Your task to perform on an android device: Go to ESPN.com Image 0: 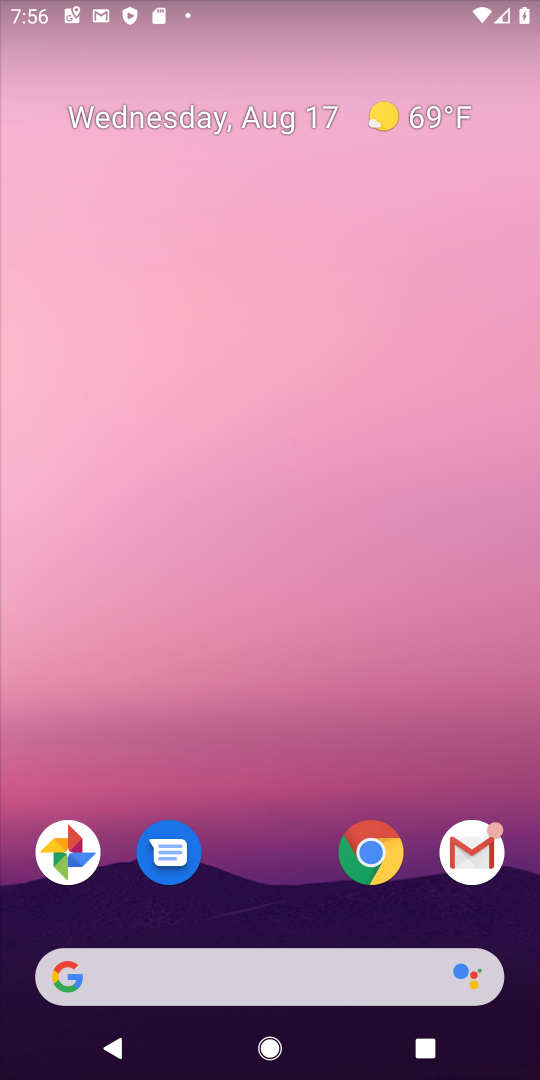
Step 0: click (369, 850)
Your task to perform on an android device: Go to ESPN.com Image 1: 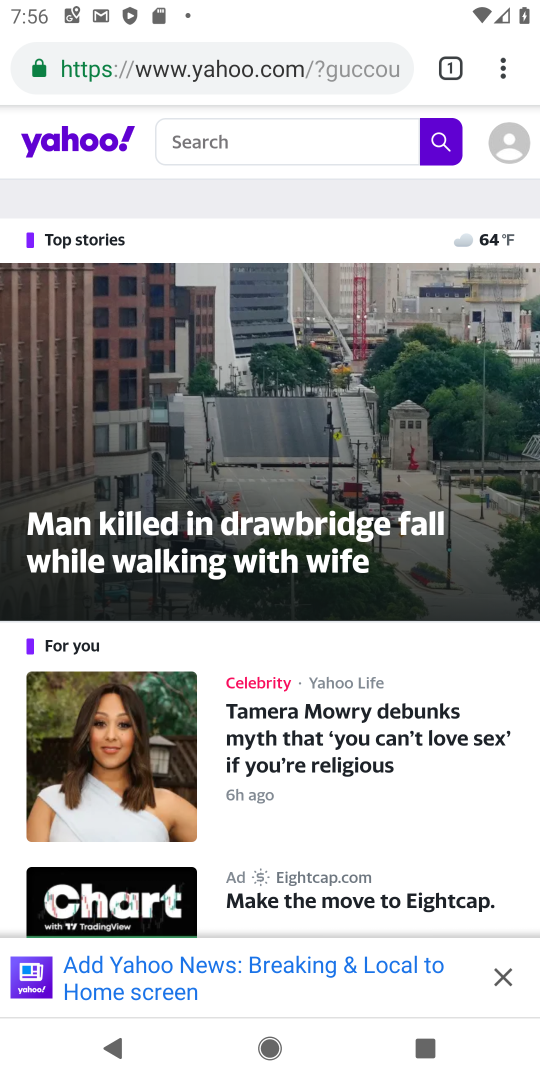
Step 1: click (498, 71)
Your task to perform on an android device: Go to ESPN.com Image 2: 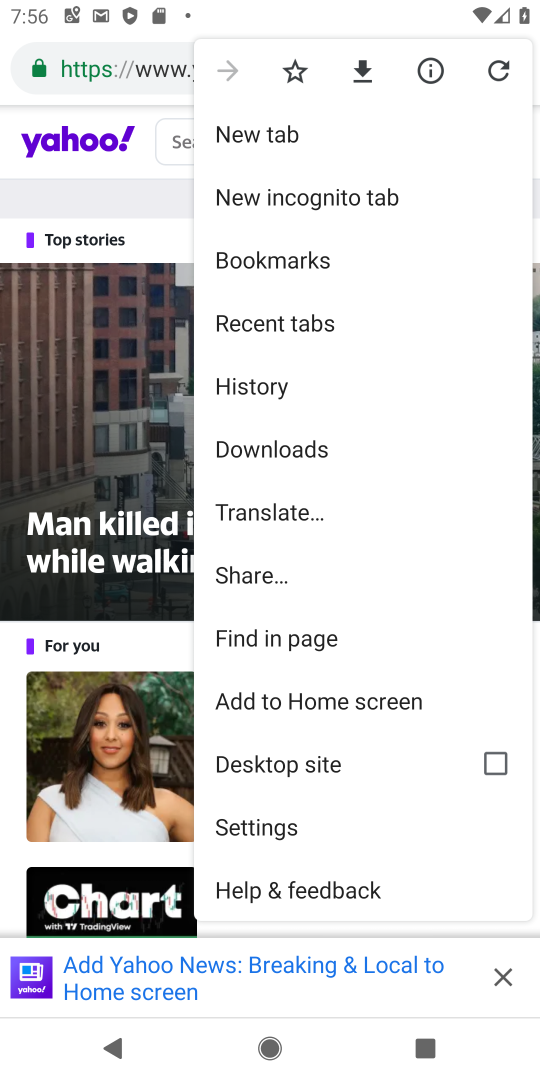
Step 2: click (279, 134)
Your task to perform on an android device: Go to ESPN.com Image 3: 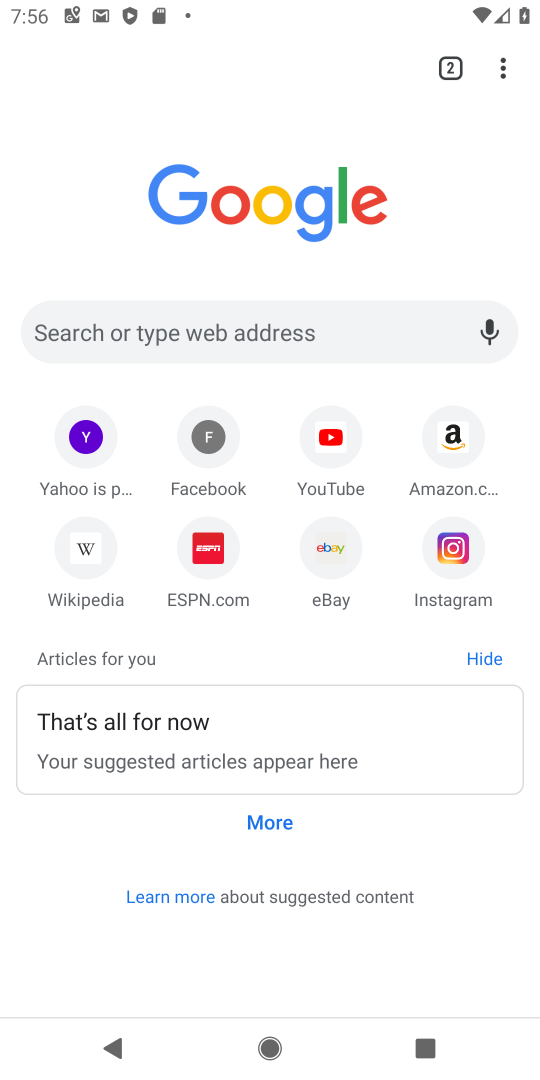
Step 3: click (207, 547)
Your task to perform on an android device: Go to ESPN.com Image 4: 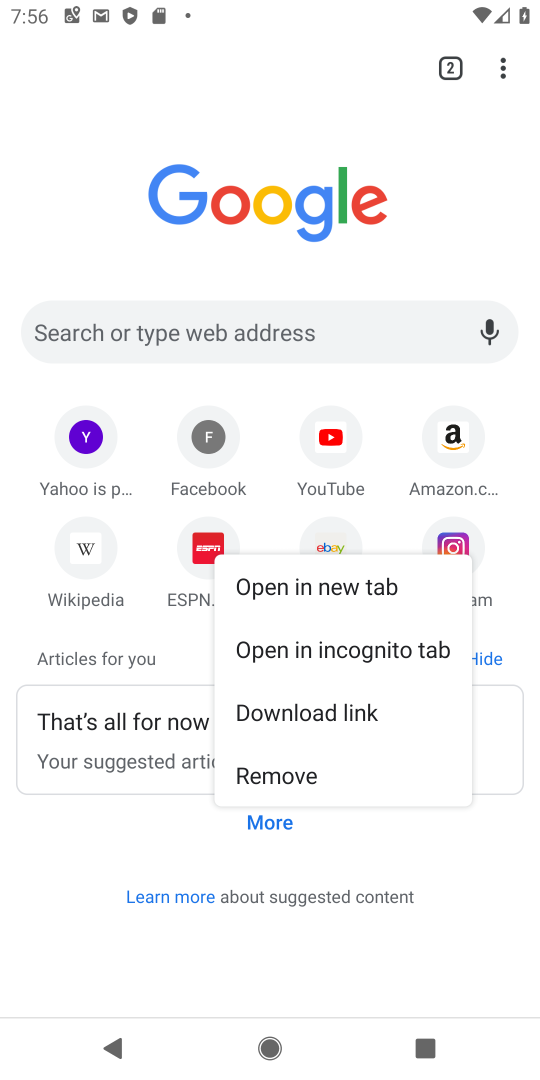
Step 4: click (207, 547)
Your task to perform on an android device: Go to ESPN.com Image 5: 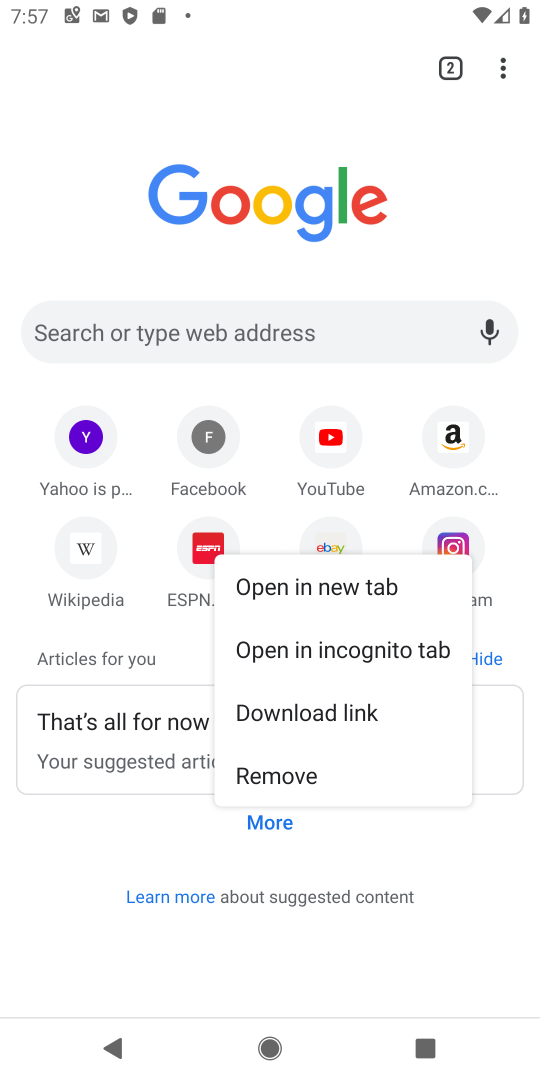
Step 5: click (196, 558)
Your task to perform on an android device: Go to ESPN.com Image 6: 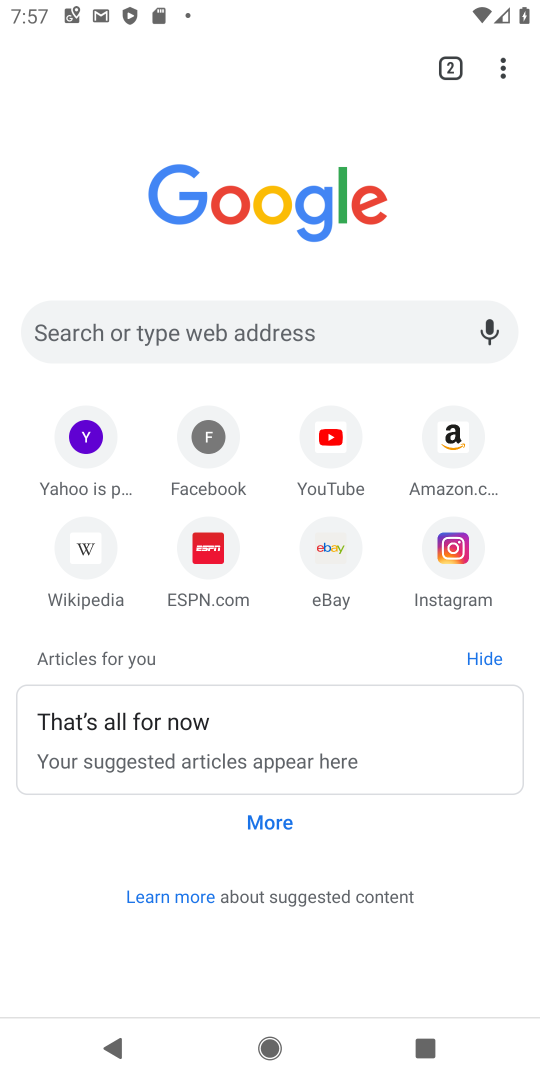
Step 6: click (208, 548)
Your task to perform on an android device: Go to ESPN.com Image 7: 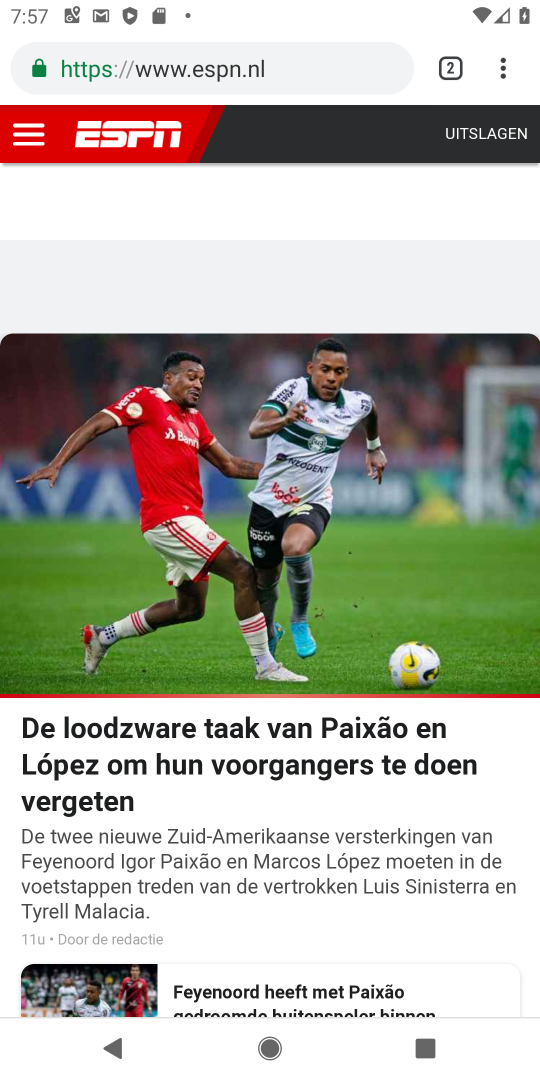
Step 7: task complete